Your task to perform on an android device: clear all cookies in the chrome app Image 0: 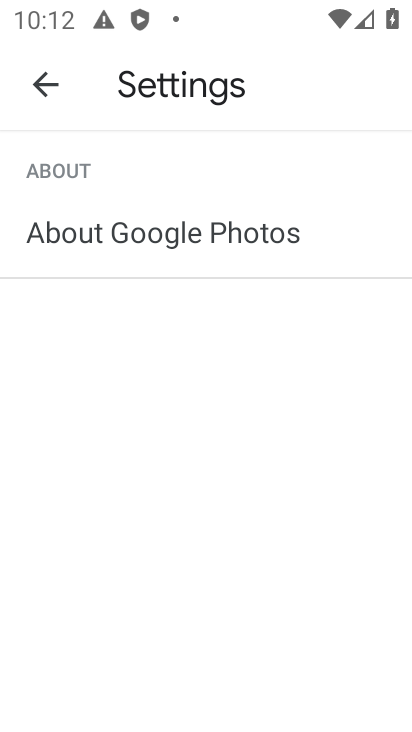
Step 0: press home button
Your task to perform on an android device: clear all cookies in the chrome app Image 1: 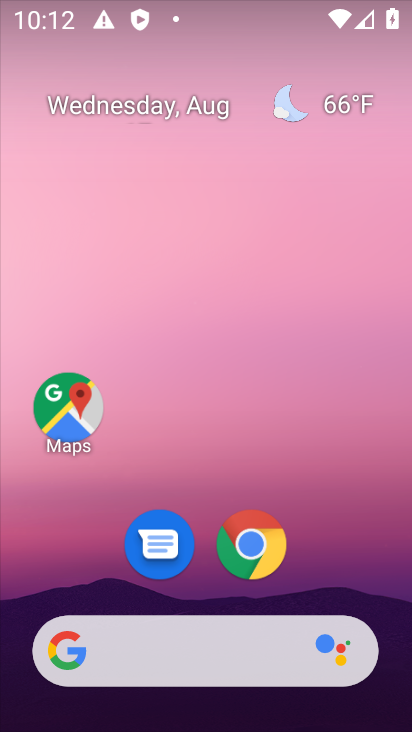
Step 1: click (405, 325)
Your task to perform on an android device: clear all cookies in the chrome app Image 2: 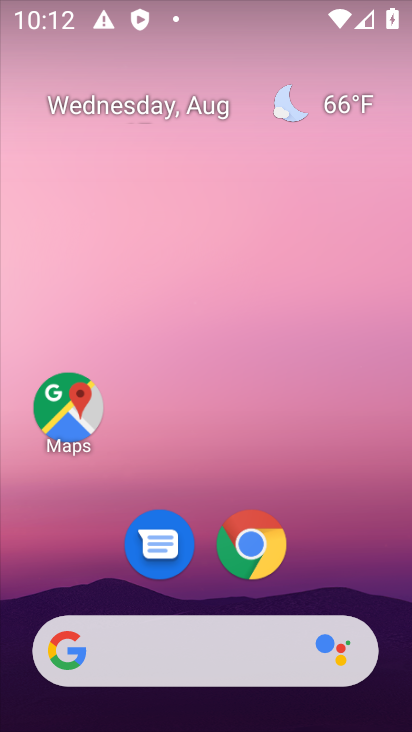
Step 2: task complete